Your task to perform on an android device: open chrome privacy settings Image 0: 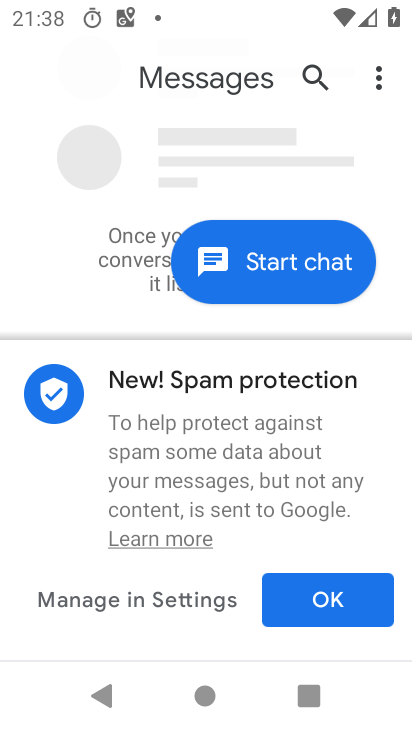
Step 0: press home button
Your task to perform on an android device: open chrome privacy settings Image 1: 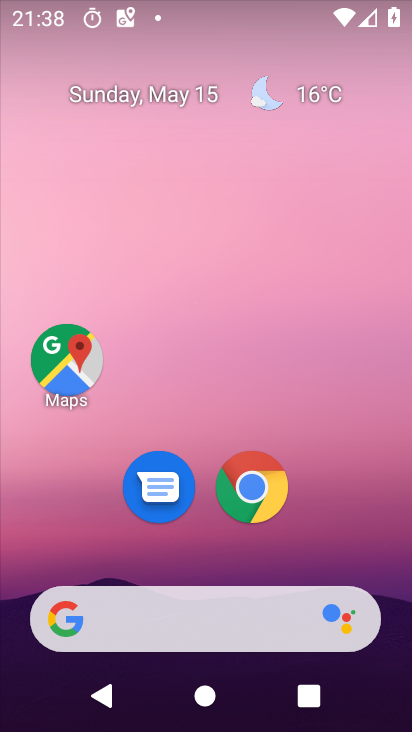
Step 1: click (242, 484)
Your task to perform on an android device: open chrome privacy settings Image 2: 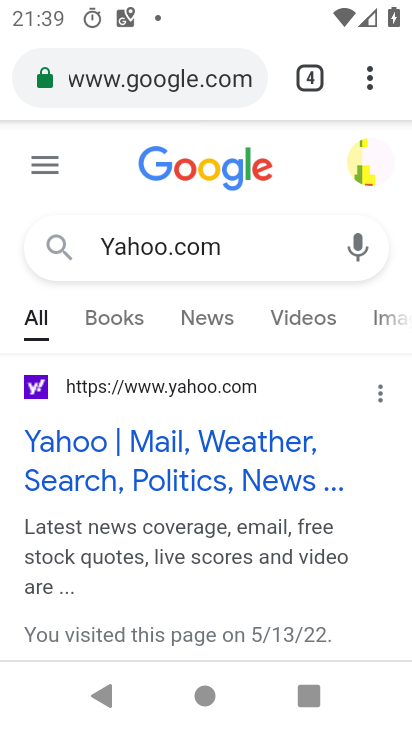
Step 2: click (374, 71)
Your task to perform on an android device: open chrome privacy settings Image 3: 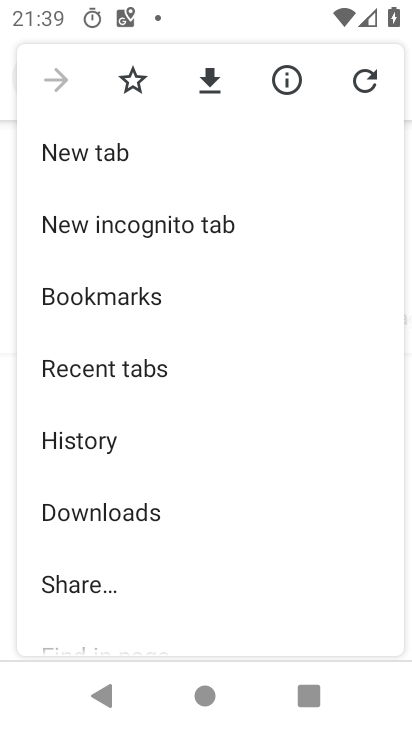
Step 3: click (232, 182)
Your task to perform on an android device: open chrome privacy settings Image 4: 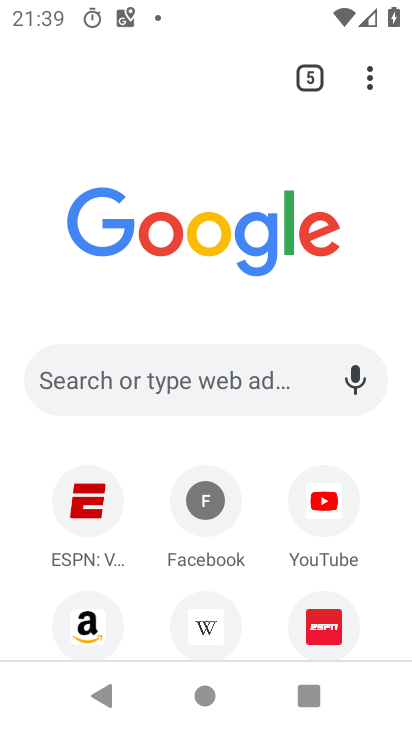
Step 4: click (367, 76)
Your task to perform on an android device: open chrome privacy settings Image 5: 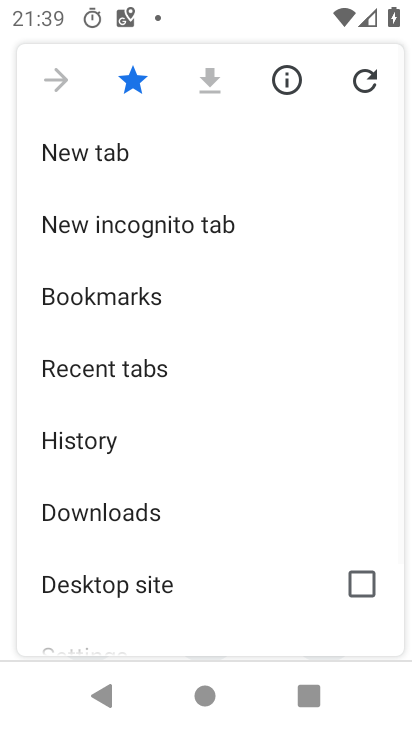
Step 5: drag from (240, 589) to (231, 282)
Your task to perform on an android device: open chrome privacy settings Image 6: 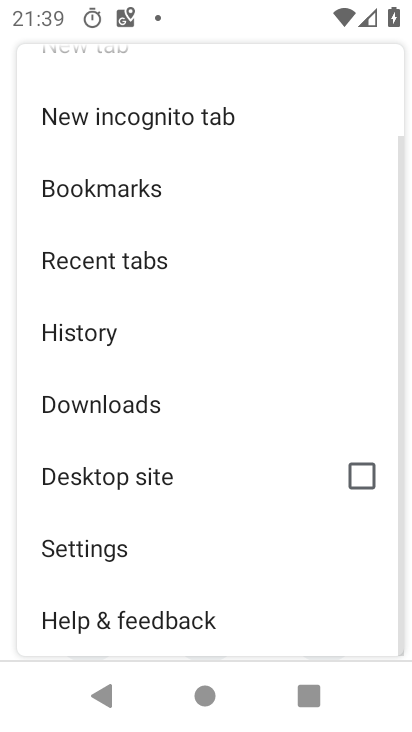
Step 6: click (53, 554)
Your task to perform on an android device: open chrome privacy settings Image 7: 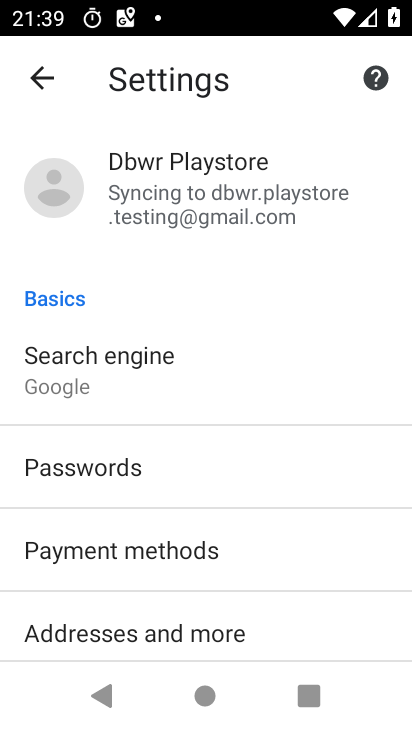
Step 7: drag from (275, 446) to (274, 277)
Your task to perform on an android device: open chrome privacy settings Image 8: 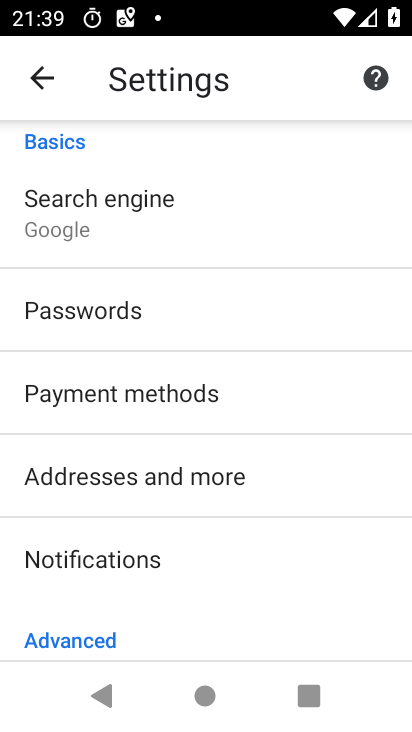
Step 8: drag from (189, 612) to (180, 383)
Your task to perform on an android device: open chrome privacy settings Image 9: 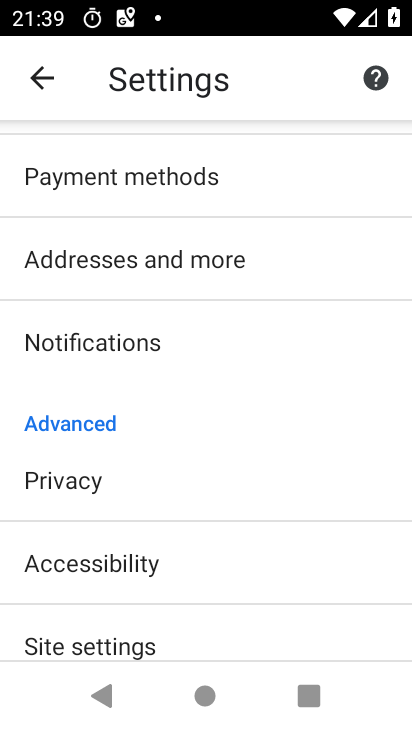
Step 9: click (64, 476)
Your task to perform on an android device: open chrome privacy settings Image 10: 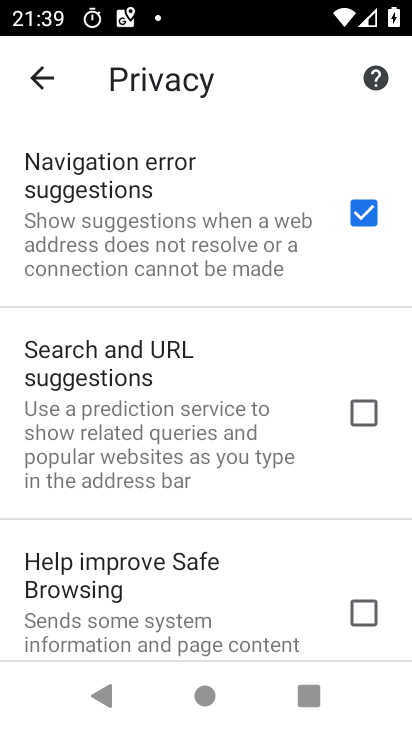
Step 10: task complete